Your task to perform on an android device: toggle notifications settings in the gmail app Image 0: 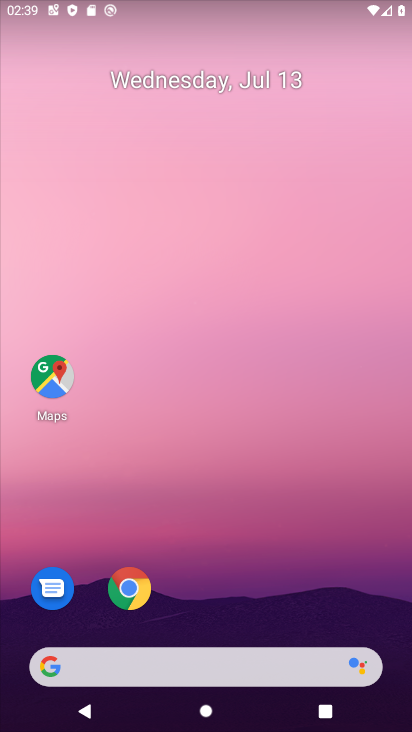
Step 0: drag from (389, 676) to (297, 322)
Your task to perform on an android device: toggle notifications settings in the gmail app Image 1: 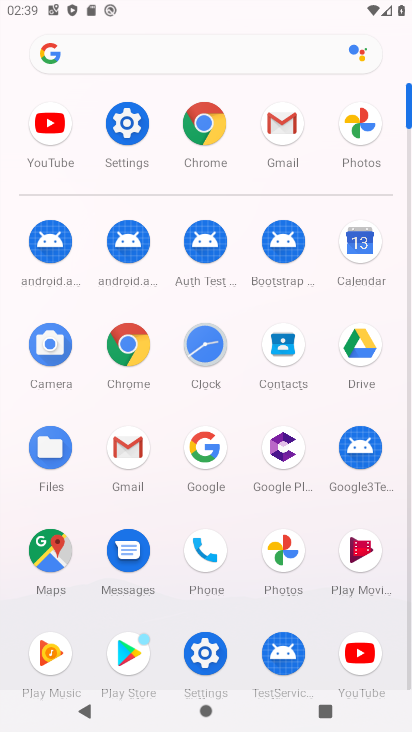
Step 1: click (140, 453)
Your task to perform on an android device: toggle notifications settings in the gmail app Image 2: 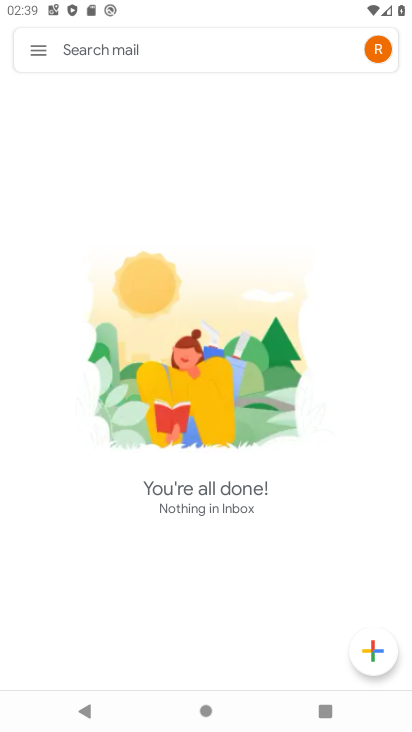
Step 2: click (37, 55)
Your task to perform on an android device: toggle notifications settings in the gmail app Image 3: 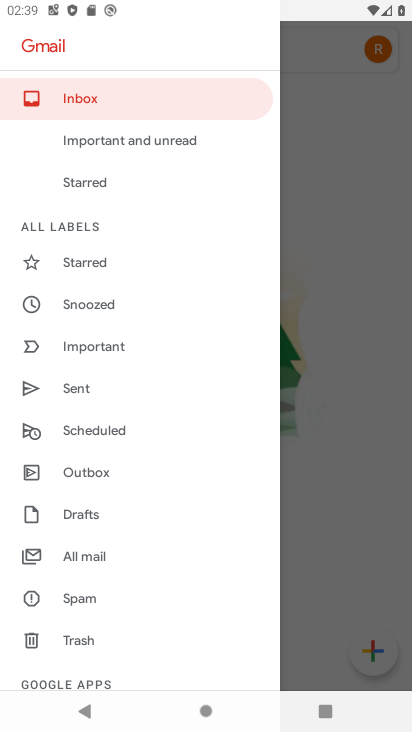
Step 3: drag from (133, 668) to (116, 285)
Your task to perform on an android device: toggle notifications settings in the gmail app Image 4: 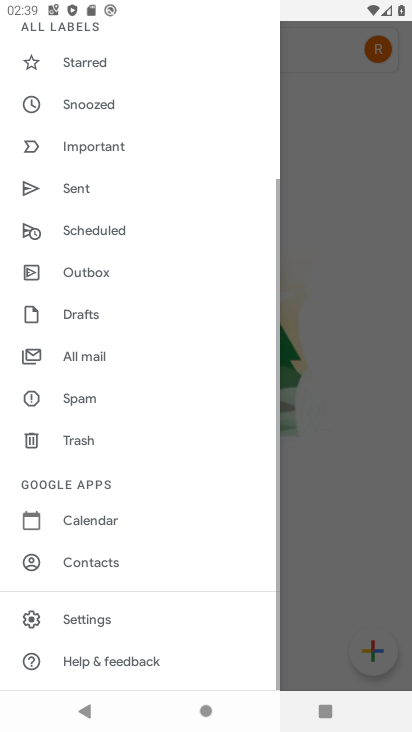
Step 4: click (88, 624)
Your task to perform on an android device: toggle notifications settings in the gmail app Image 5: 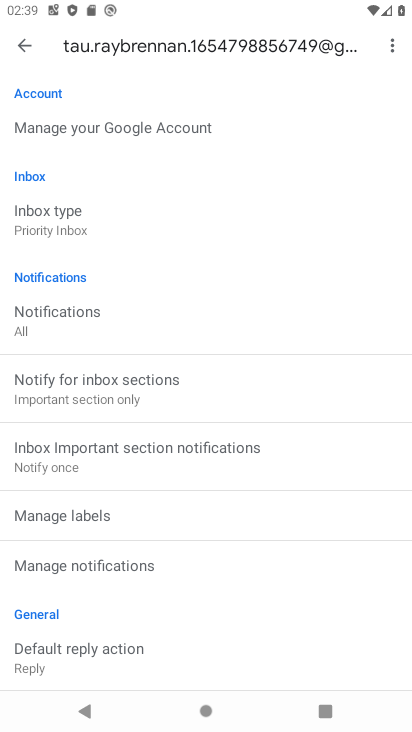
Step 5: click (52, 305)
Your task to perform on an android device: toggle notifications settings in the gmail app Image 6: 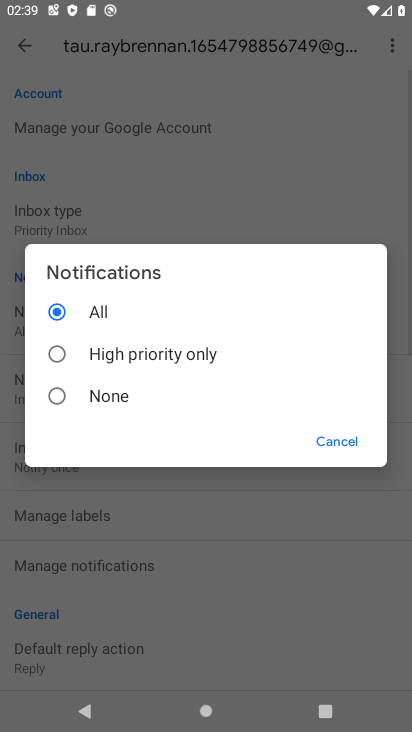
Step 6: click (64, 352)
Your task to perform on an android device: toggle notifications settings in the gmail app Image 7: 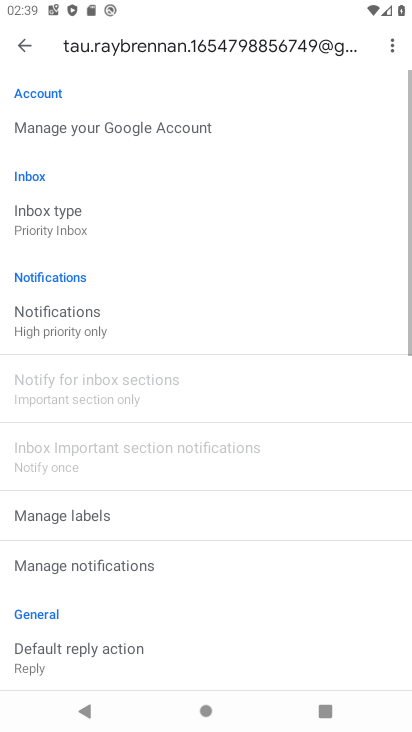
Step 7: task complete